Your task to perform on an android device: Open battery settings Image 0: 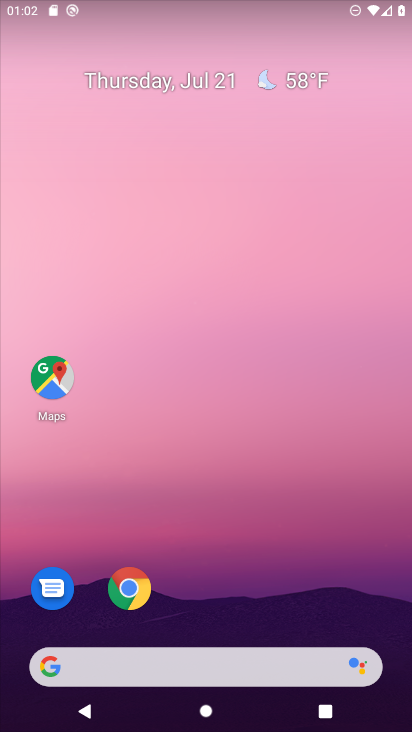
Step 0: drag from (211, 626) to (235, 124)
Your task to perform on an android device: Open battery settings Image 1: 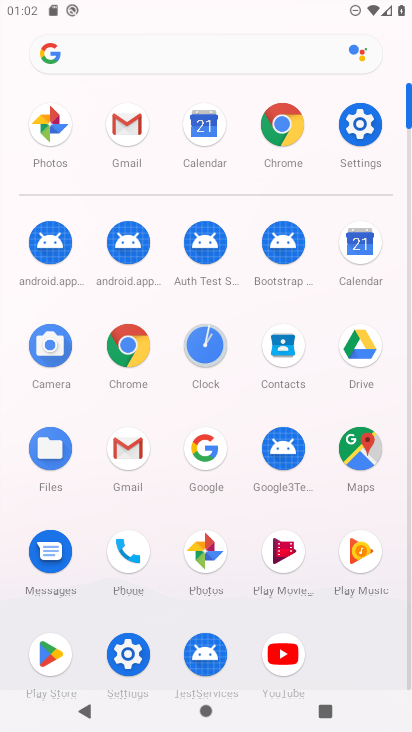
Step 1: click (126, 663)
Your task to perform on an android device: Open battery settings Image 2: 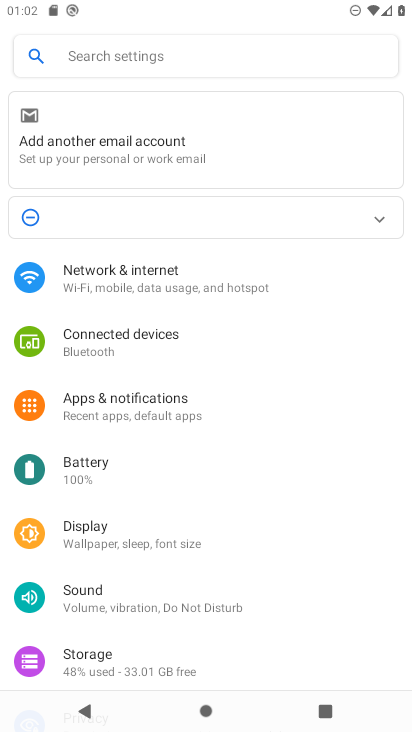
Step 2: click (123, 489)
Your task to perform on an android device: Open battery settings Image 3: 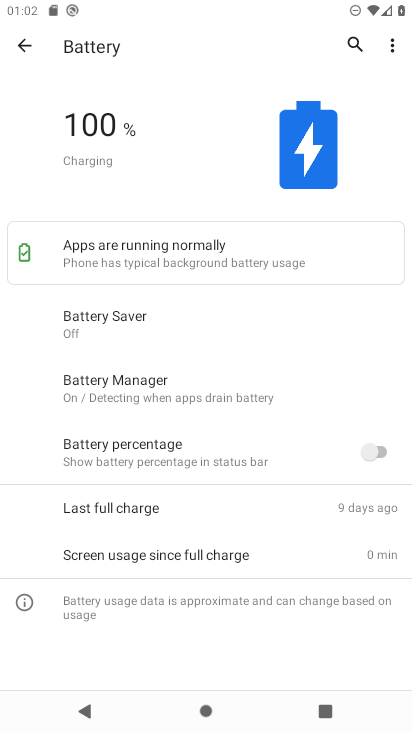
Step 3: task complete